Your task to perform on an android device: What's on my calendar tomorrow? Image 0: 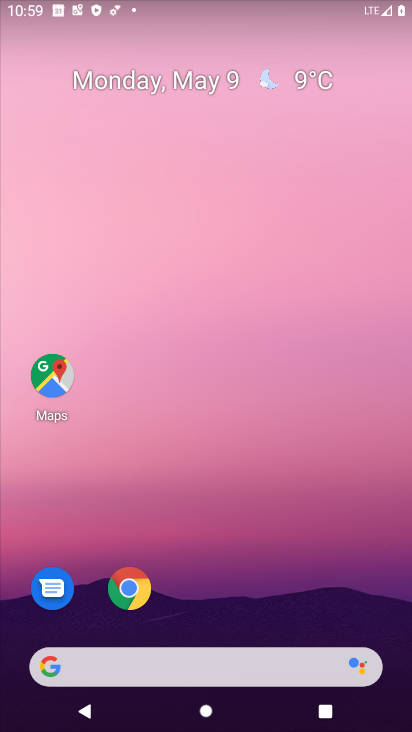
Step 0: drag from (170, 670) to (319, 142)
Your task to perform on an android device: What's on my calendar tomorrow? Image 1: 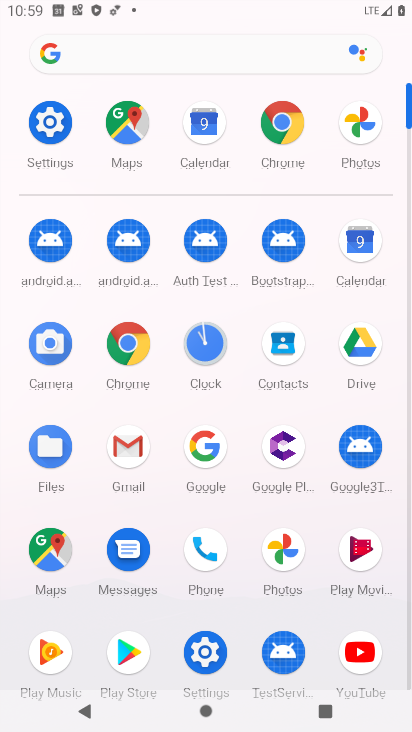
Step 1: click (364, 240)
Your task to perform on an android device: What's on my calendar tomorrow? Image 2: 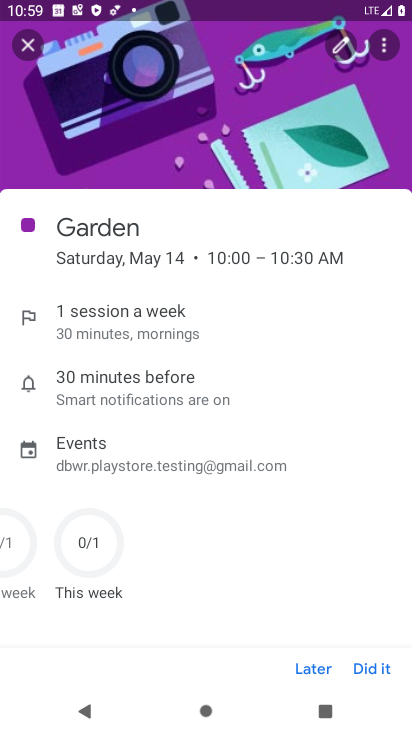
Step 2: click (28, 49)
Your task to perform on an android device: What's on my calendar tomorrow? Image 3: 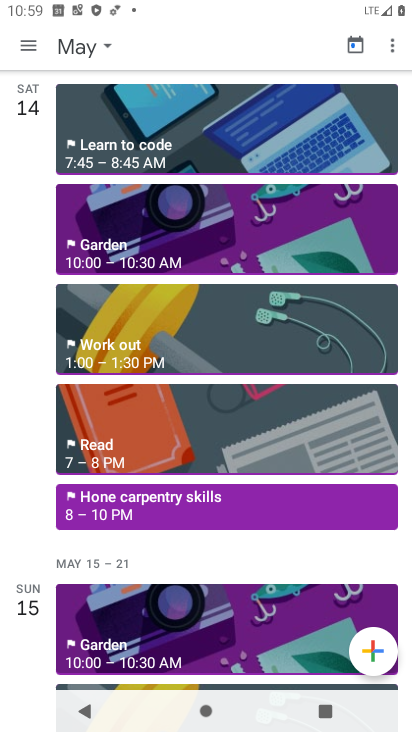
Step 3: click (64, 51)
Your task to perform on an android device: What's on my calendar tomorrow? Image 4: 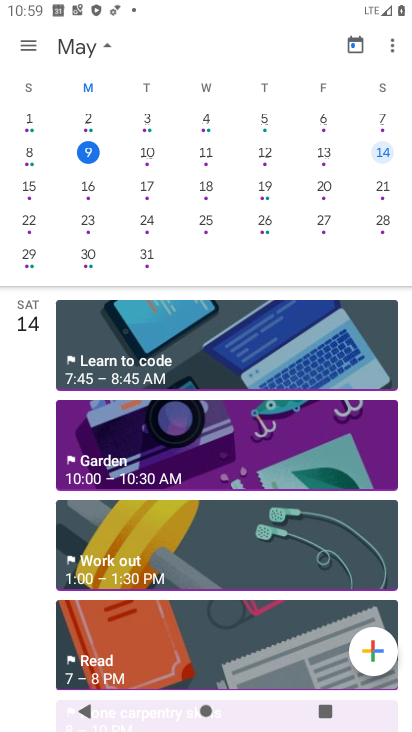
Step 4: click (151, 156)
Your task to perform on an android device: What's on my calendar tomorrow? Image 5: 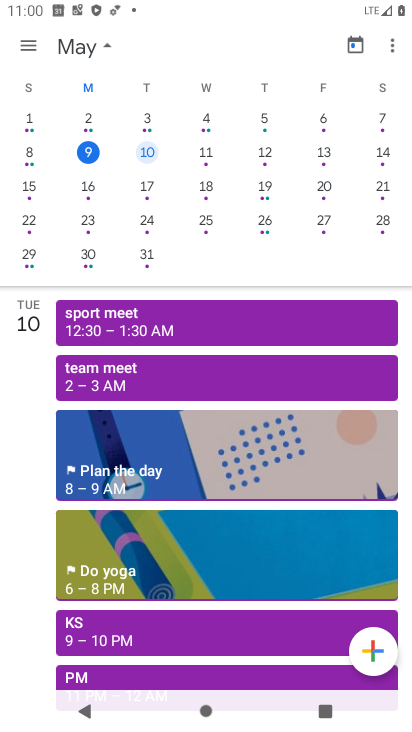
Step 5: click (30, 46)
Your task to perform on an android device: What's on my calendar tomorrow? Image 6: 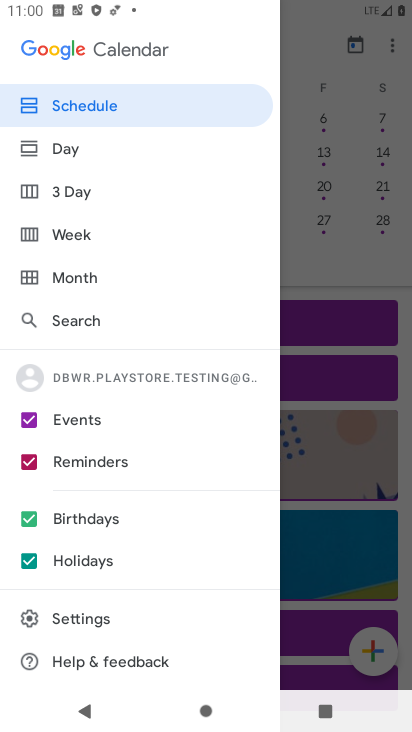
Step 6: click (70, 148)
Your task to perform on an android device: What's on my calendar tomorrow? Image 7: 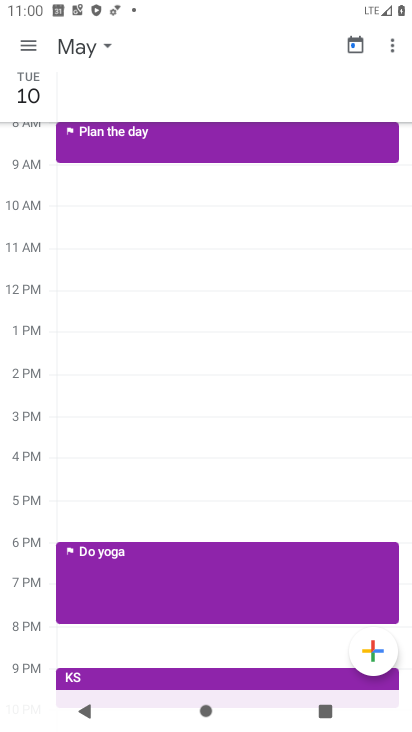
Step 7: click (24, 41)
Your task to perform on an android device: What's on my calendar tomorrow? Image 8: 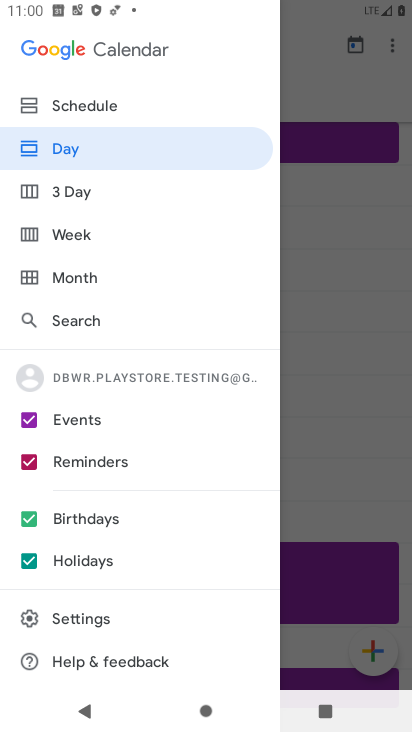
Step 8: click (64, 101)
Your task to perform on an android device: What's on my calendar tomorrow? Image 9: 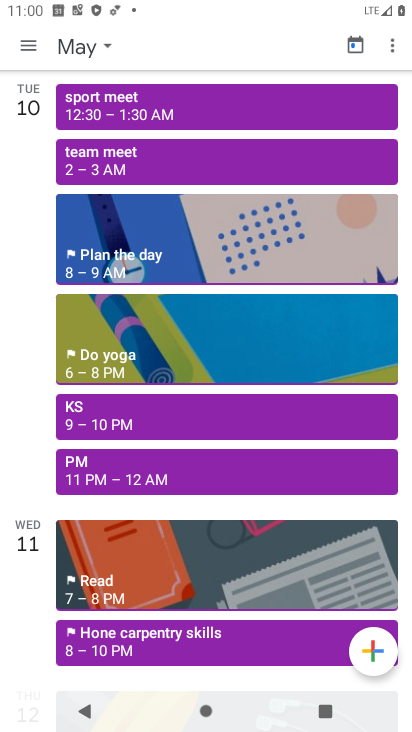
Step 9: click (168, 174)
Your task to perform on an android device: What's on my calendar tomorrow? Image 10: 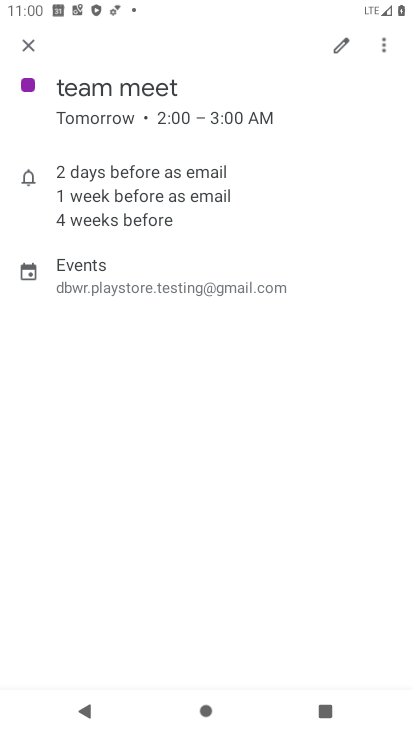
Step 10: task complete